Your task to perform on an android device: Open Google Chrome and open the bookmarks view Image 0: 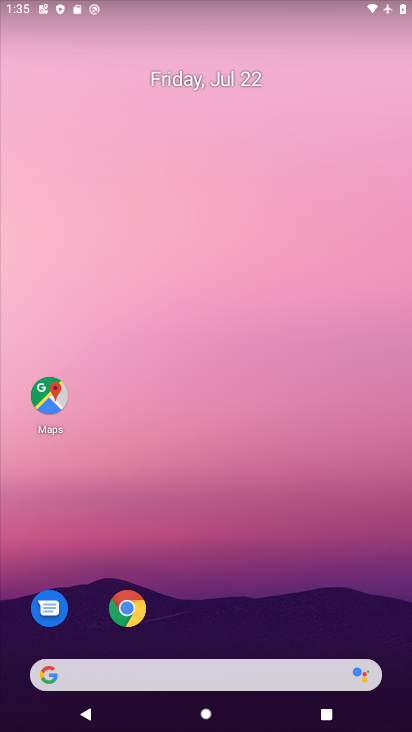
Step 0: drag from (255, 723) to (254, 207)
Your task to perform on an android device: Open Google Chrome and open the bookmarks view Image 1: 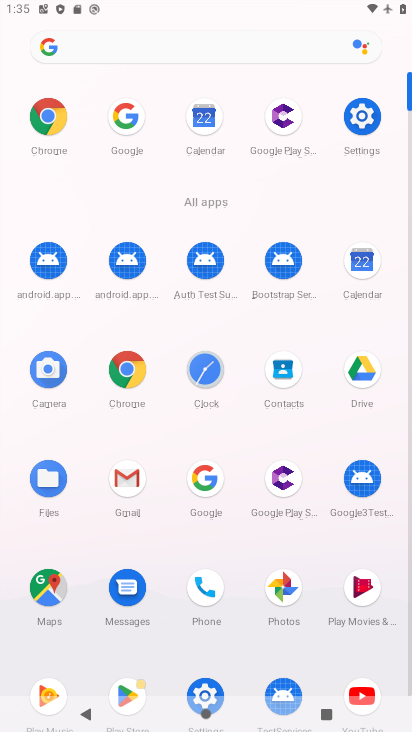
Step 1: click (125, 372)
Your task to perform on an android device: Open Google Chrome and open the bookmarks view Image 2: 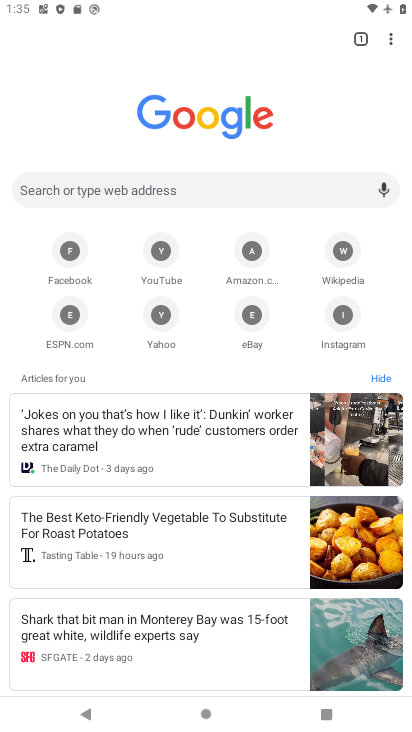
Step 2: click (389, 39)
Your task to perform on an android device: Open Google Chrome and open the bookmarks view Image 3: 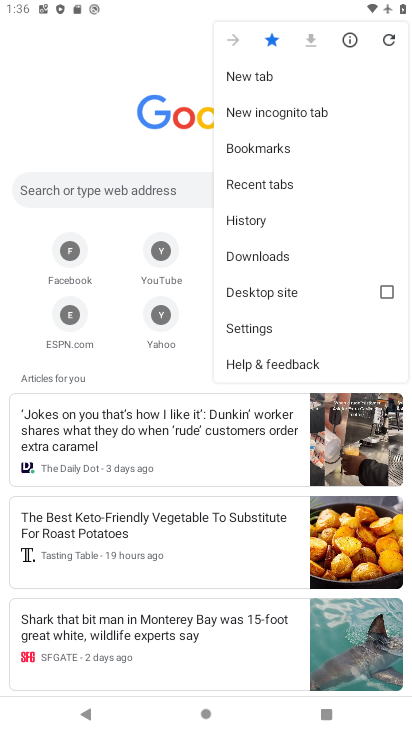
Step 3: click (263, 148)
Your task to perform on an android device: Open Google Chrome and open the bookmarks view Image 4: 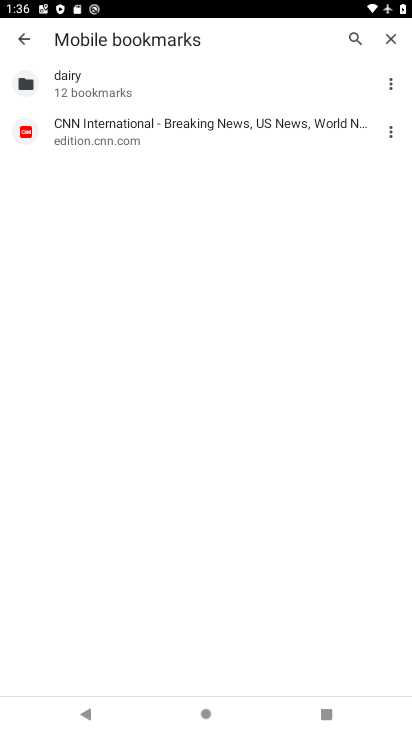
Step 4: task complete